Your task to perform on an android device: change the clock display to digital Image 0: 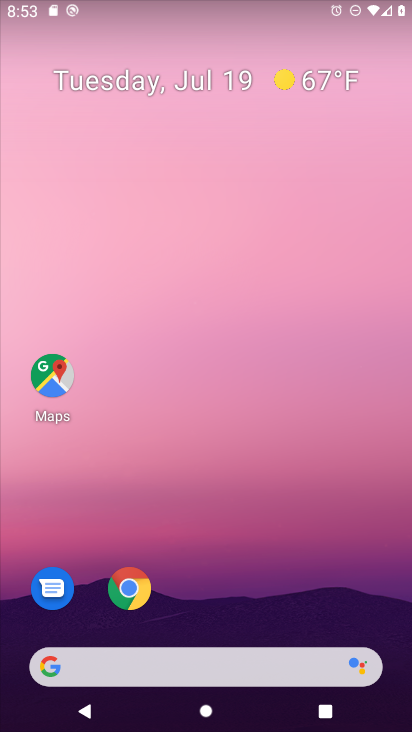
Step 0: drag from (361, 589) to (355, 84)
Your task to perform on an android device: change the clock display to digital Image 1: 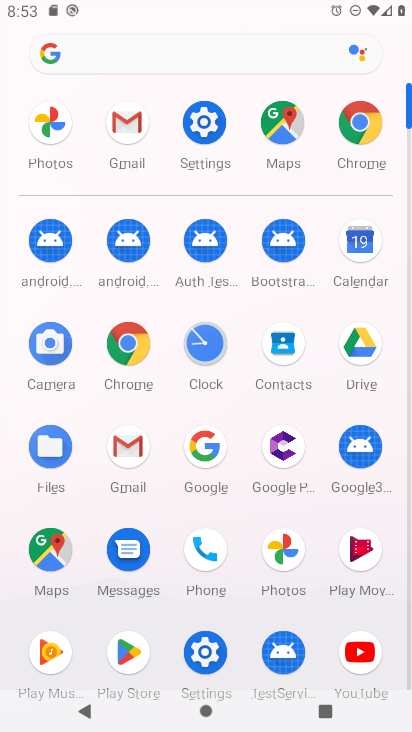
Step 1: click (206, 345)
Your task to perform on an android device: change the clock display to digital Image 2: 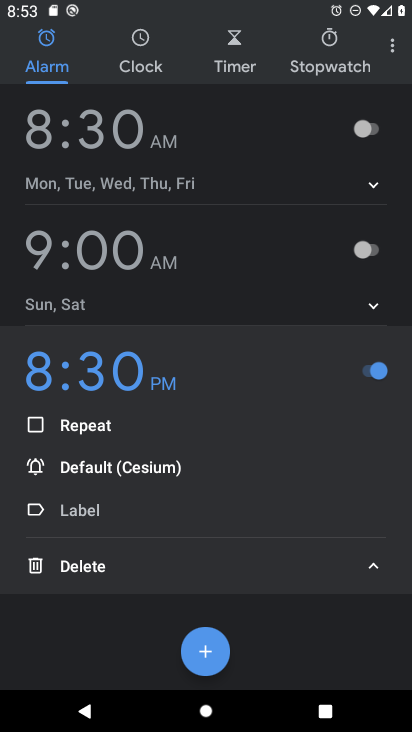
Step 2: click (393, 53)
Your task to perform on an android device: change the clock display to digital Image 3: 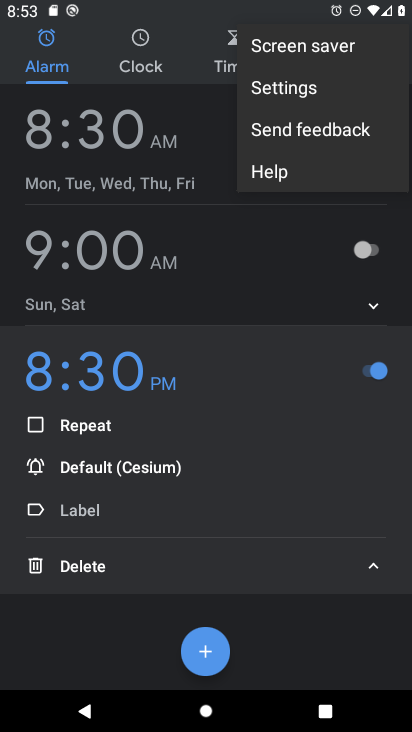
Step 3: click (327, 89)
Your task to perform on an android device: change the clock display to digital Image 4: 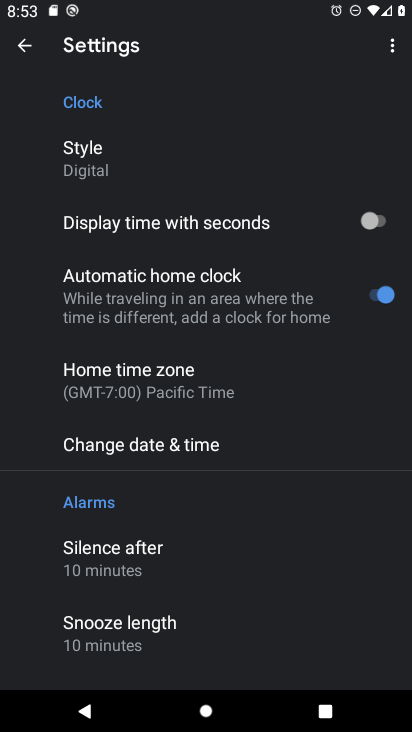
Step 4: task complete